Your task to perform on an android device: Open the map Image 0: 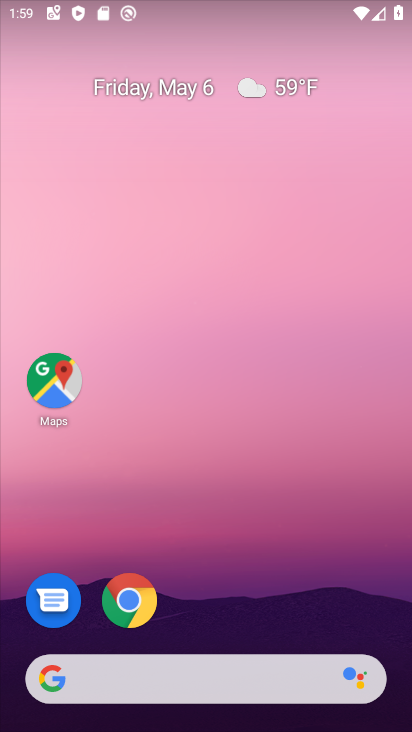
Step 0: drag from (253, 570) to (301, 3)
Your task to perform on an android device: Open the map Image 1: 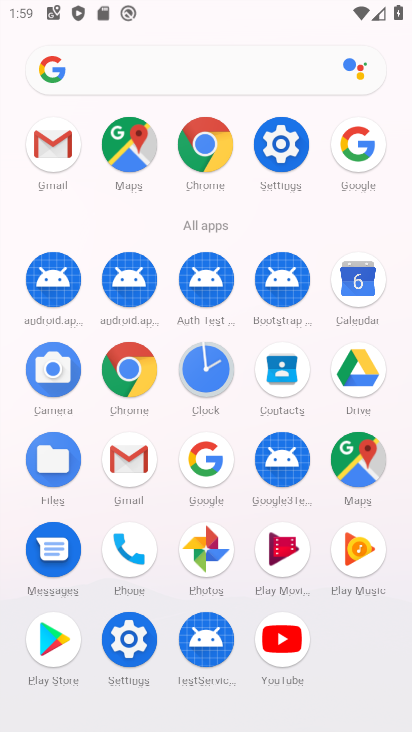
Step 1: click (359, 466)
Your task to perform on an android device: Open the map Image 2: 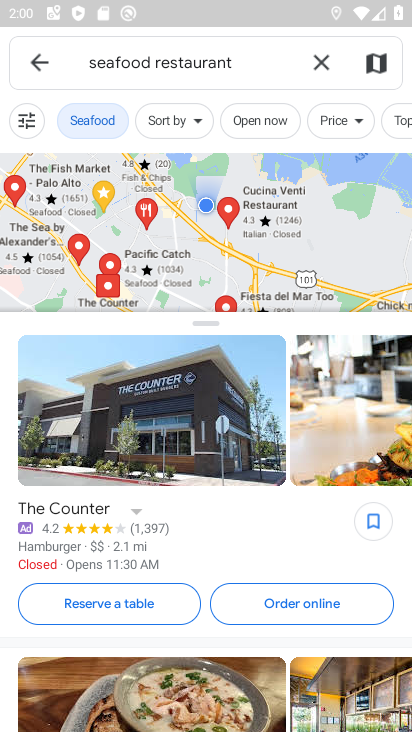
Step 2: task complete